Your task to perform on an android device: add a label to a message in the gmail app Image 0: 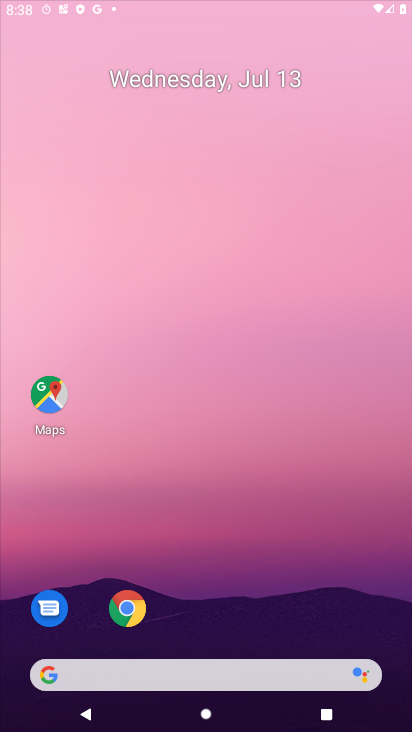
Step 0: click (227, 372)
Your task to perform on an android device: add a label to a message in the gmail app Image 1: 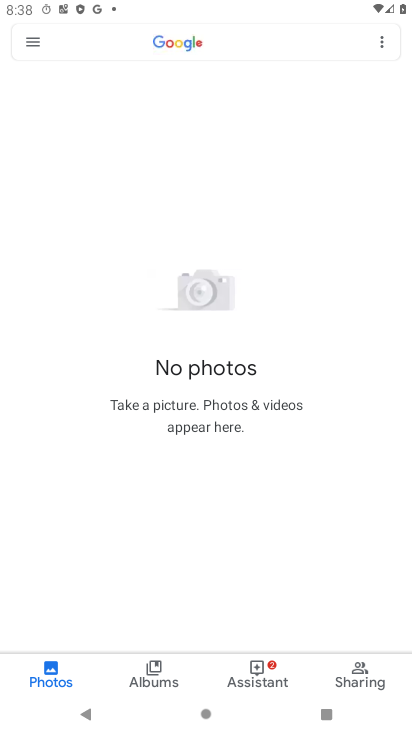
Step 1: press back button
Your task to perform on an android device: add a label to a message in the gmail app Image 2: 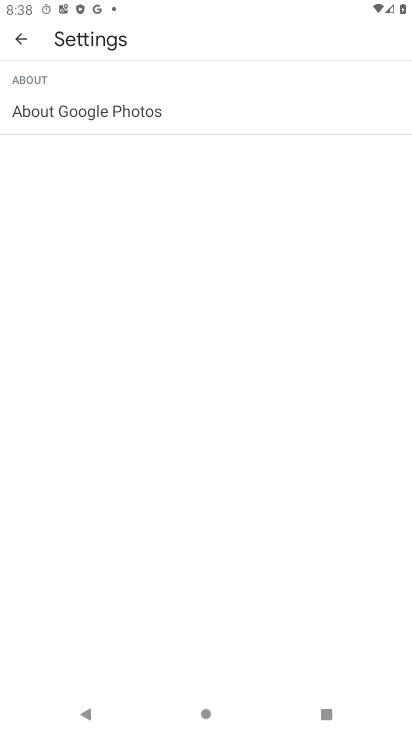
Step 2: click (9, 40)
Your task to perform on an android device: add a label to a message in the gmail app Image 3: 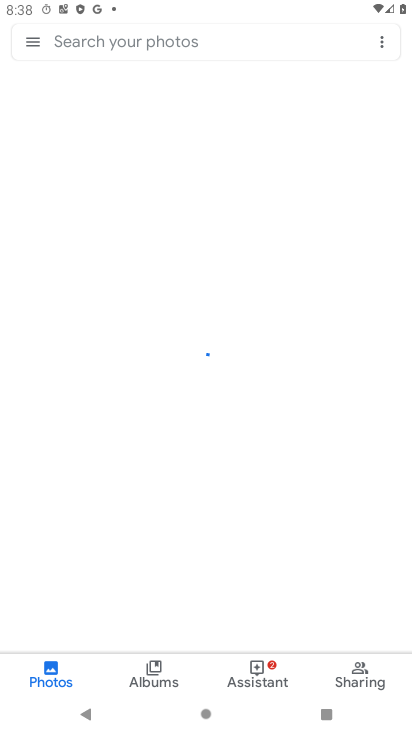
Step 3: press home button
Your task to perform on an android device: add a label to a message in the gmail app Image 4: 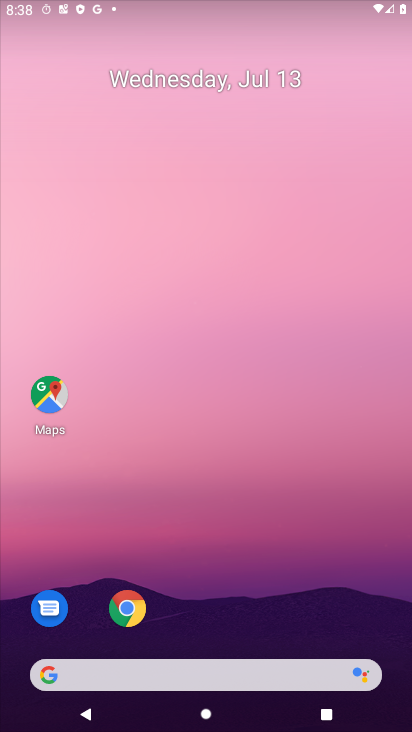
Step 4: drag from (249, 727) to (217, 143)
Your task to perform on an android device: add a label to a message in the gmail app Image 5: 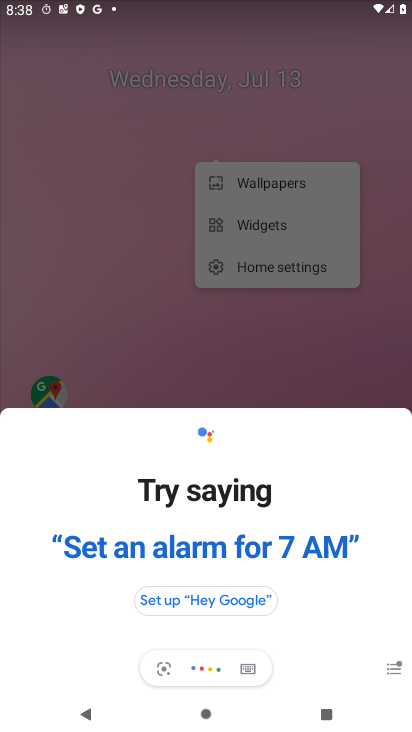
Step 5: drag from (182, 394) to (157, 165)
Your task to perform on an android device: add a label to a message in the gmail app Image 6: 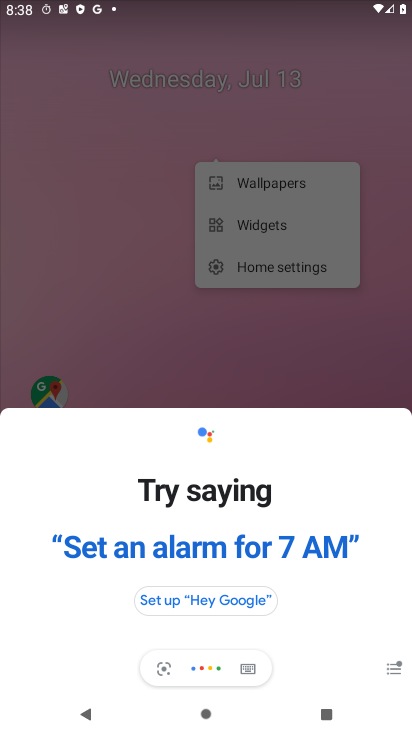
Step 6: click (155, 159)
Your task to perform on an android device: add a label to a message in the gmail app Image 7: 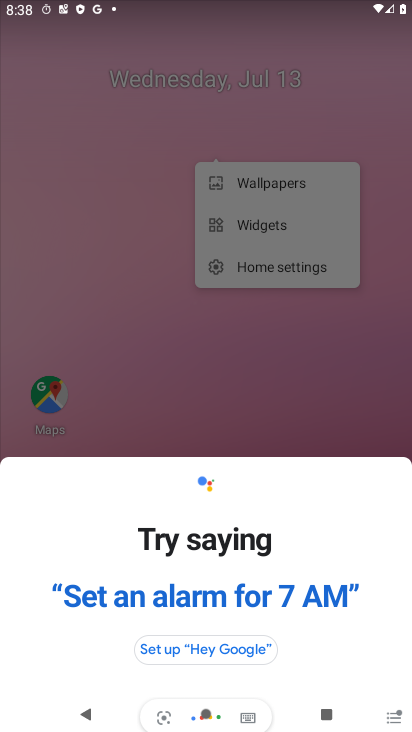
Step 7: click (156, 160)
Your task to perform on an android device: add a label to a message in the gmail app Image 8: 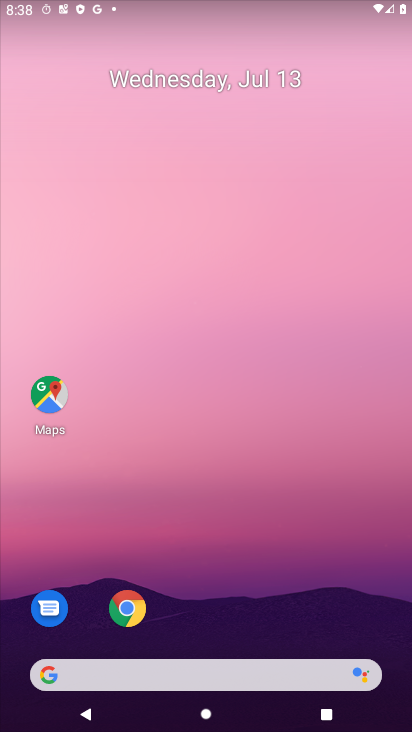
Step 8: drag from (189, 603) to (160, 171)
Your task to perform on an android device: add a label to a message in the gmail app Image 9: 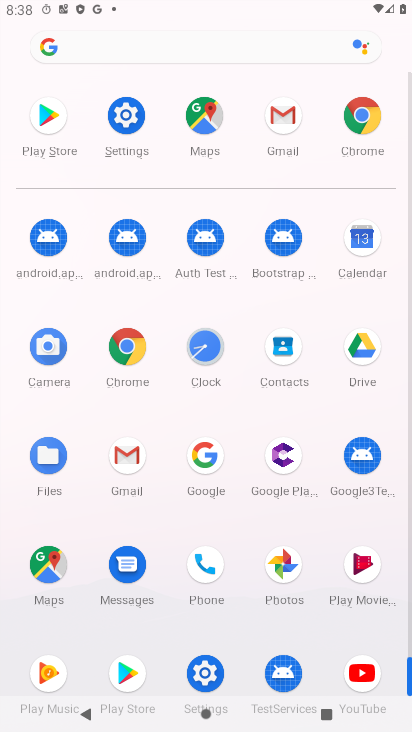
Step 9: click (119, 454)
Your task to perform on an android device: add a label to a message in the gmail app Image 10: 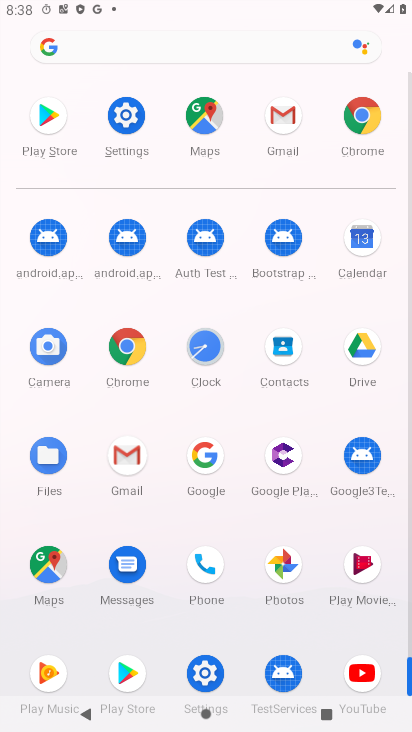
Step 10: click (123, 455)
Your task to perform on an android device: add a label to a message in the gmail app Image 11: 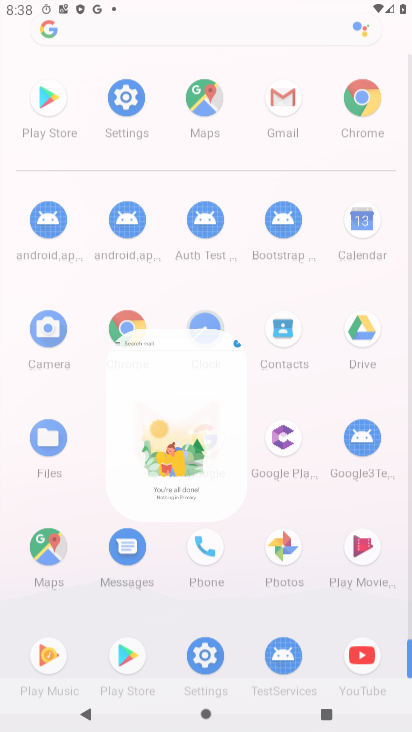
Step 11: click (124, 456)
Your task to perform on an android device: add a label to a message in the gmail app Image 12: 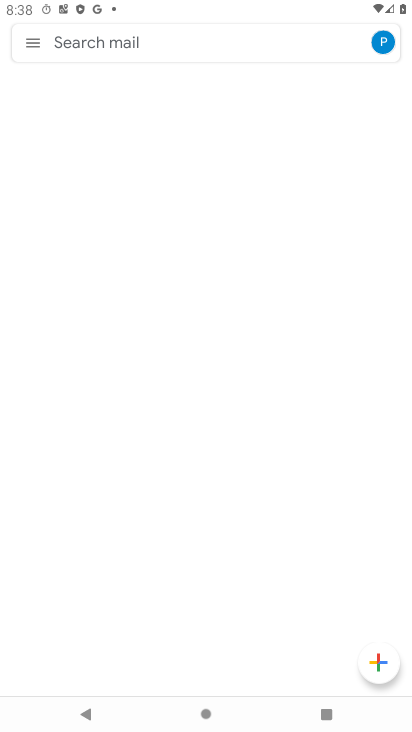
Step 12: click (32, 38)
Your task to perform on an android device: add a label to a message in the gmail app Image 13: 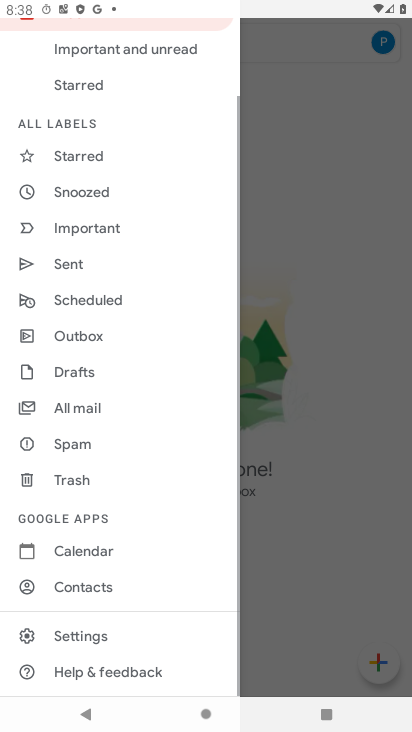
Step 13: click (85, 409)
Your task to perform on an android device: add a label to a message in the gmail app Image 14: 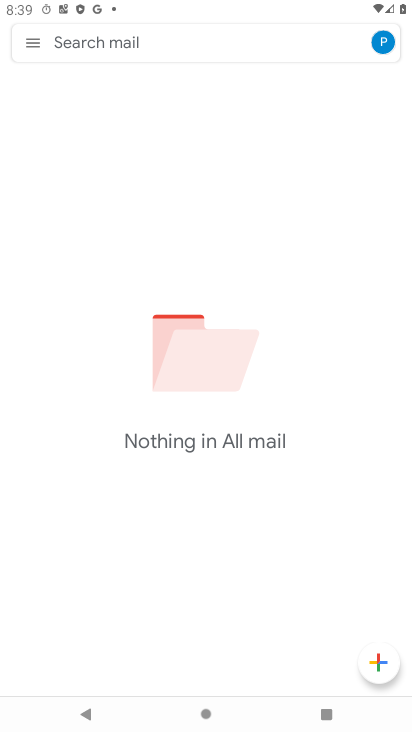
Step 14: task complete